Your task to perform on an android device: toggle data saver in the chrome app Image 0: 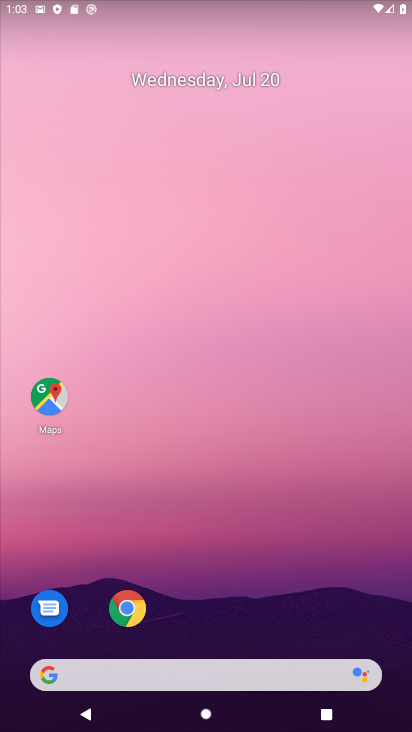
Step 0: click (127, 608)
Your task to perform on an android device: toggle data saver in the chrome app Image 1: 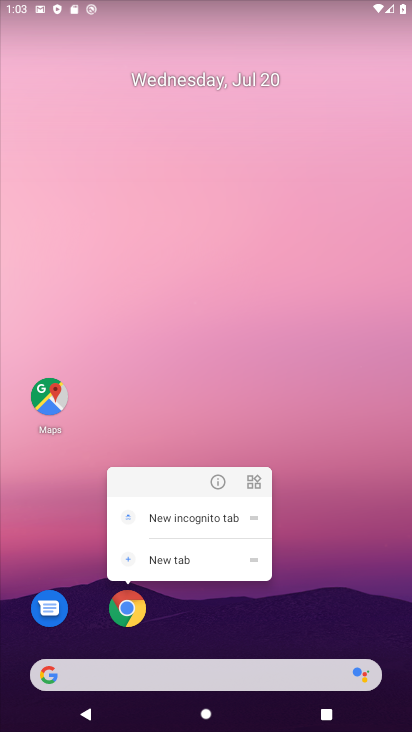
Step 1: click (125, 618)
Your task to perform on an android device: toggle data saver in the chrome app Image 2: 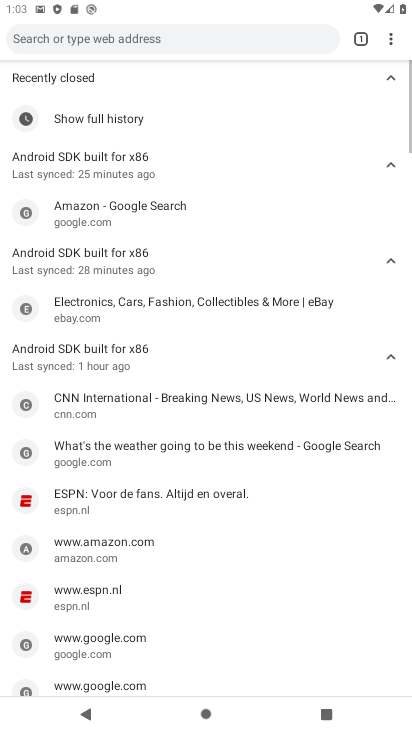
Step 2: drag from (390, 34) to (248, 330)
Your task to perform on an android device: toggle data saver in the chrome app Image 3: 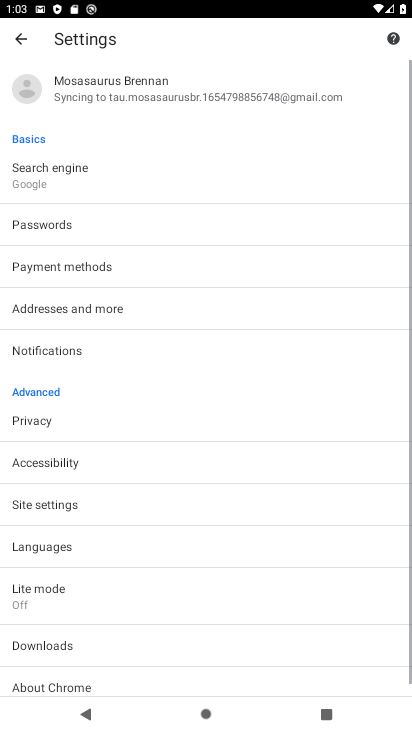
Step 3: drag from (128, 668) to (201, 317)
Your task to perform on an android device: toggle data saver in the chrome app Image 4: 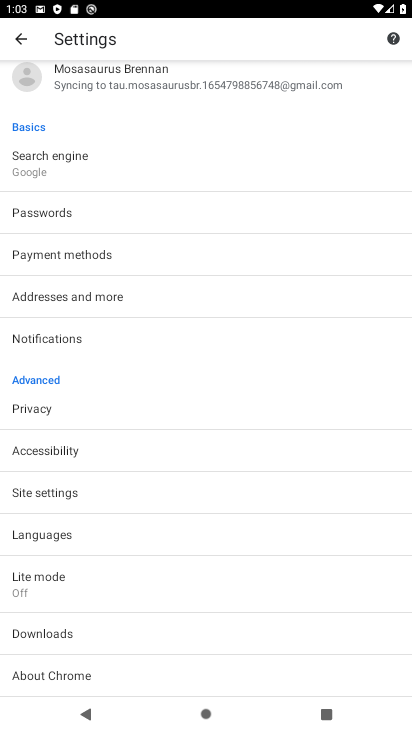
Step 4: click (61, 587)
Your task to perform on an android device: toggle data saver in the chrome app Image 5: 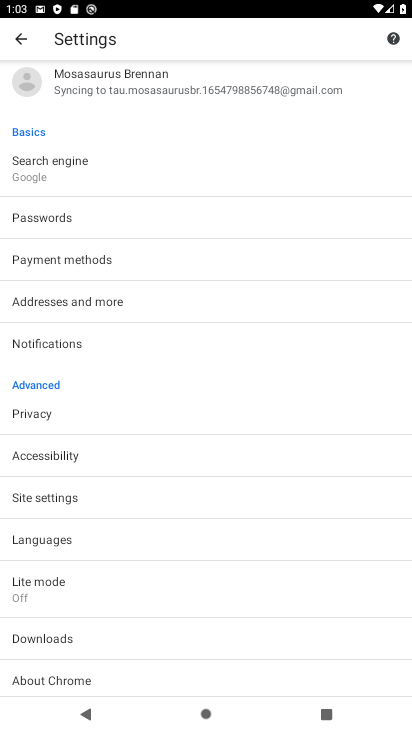
Step 5: click (37, 582)
Your task to perform on an android device: toggle data saver in the chrome app Image 6: 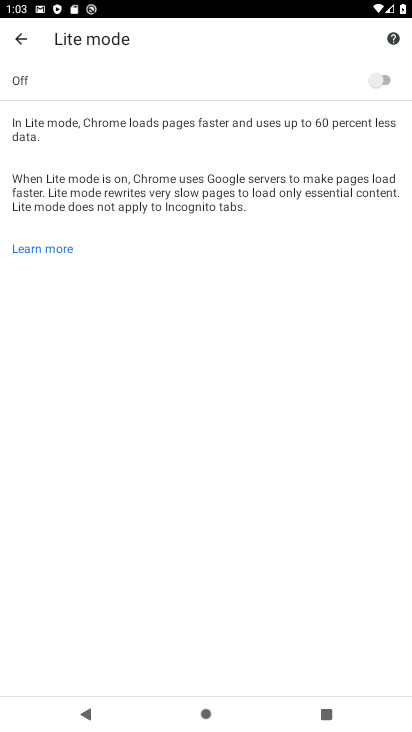
Step 6: click (381, 73)
Your task to perform on an android device: toggle data saver in the chrome app Image 7: 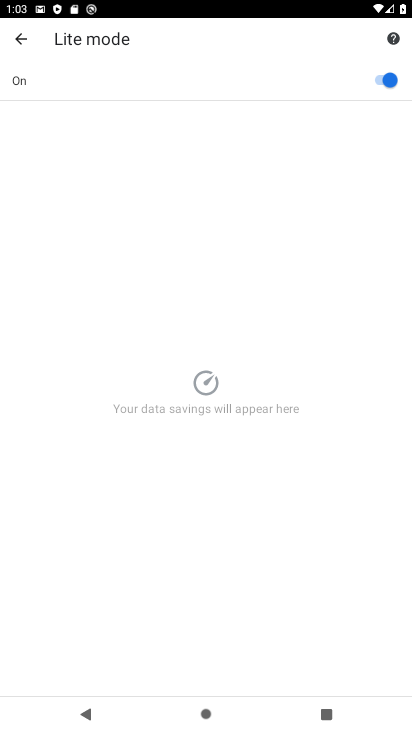
Step 7: task complete